Your task to perform on an android device: Open calendar and show me the third week of next month Image 0: 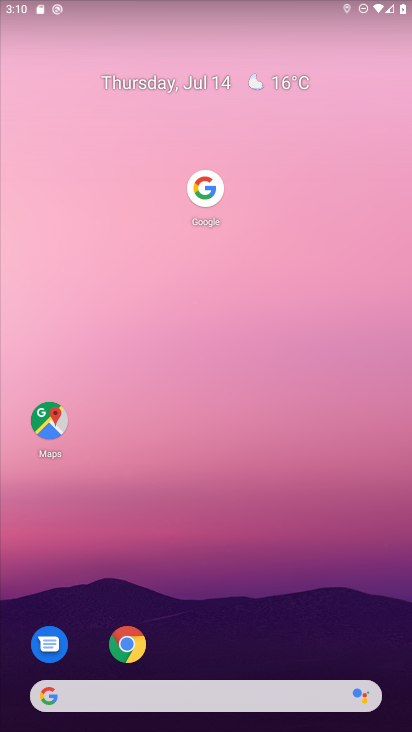
Step 0: drag from (239, 612) to (229, 191)
Your task to perform on an android device: Open calendar and show me the third week of next month Image 1: 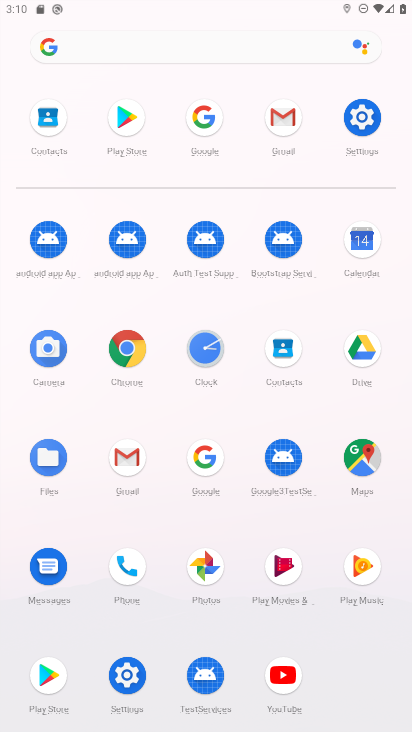
Step 1: click (374, 233)
Your task to perform on an android device: Open calendar and show me the third week of next month Image 2: 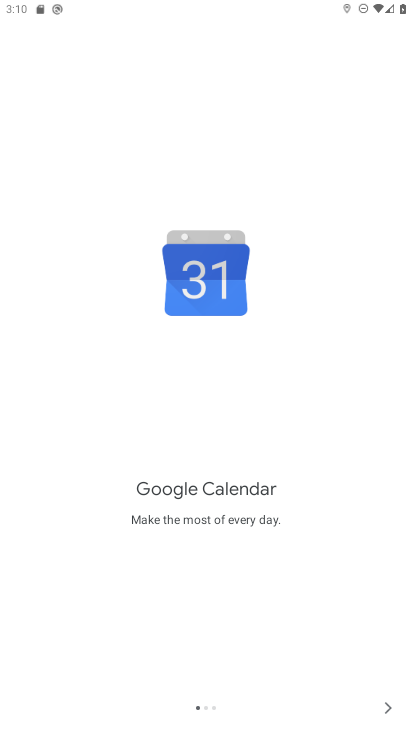
Step 2: click (385, 706)
Your task to perform on an android device: Open calendar and show me the third week of next month Image 3: 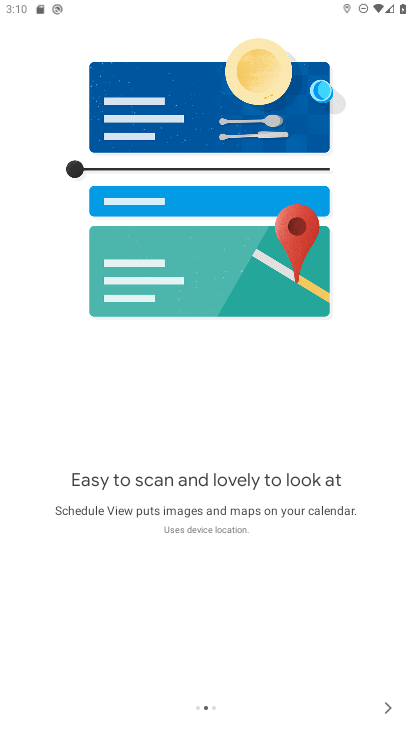
Step 3: click (385, 706)
Your task to perform on an android device: Open calendar and show me the third week of next month Image 4: 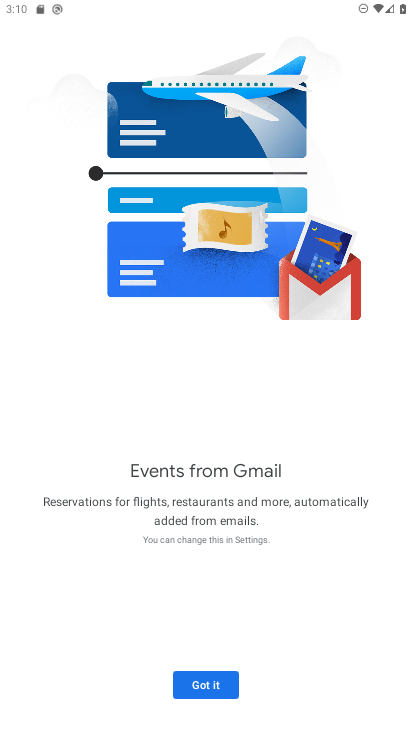
Step 4: click (221, 685)
Your task to perform on an android device: Open calendar and show me the third week of next month Image 5: 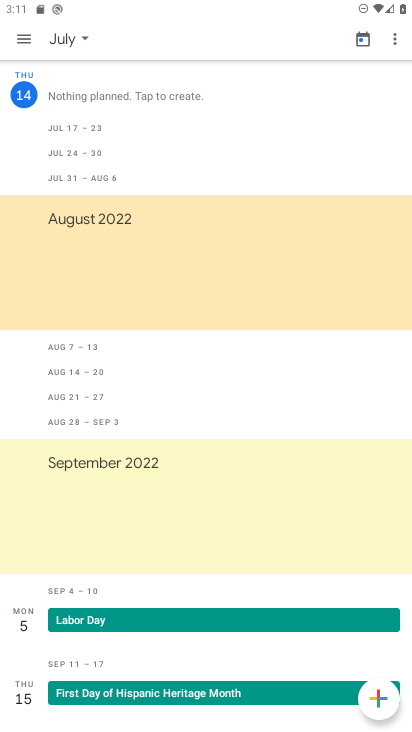
Step 5: click (76, 42)
Your task to perform on an android device: Open calendar and show me the third week of next month Image 6: 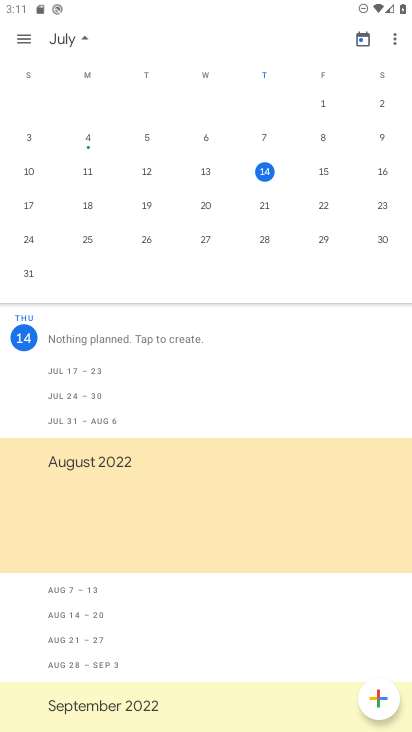
Step 6: drag from (344, 181) to (0, 186)
Your task to perform on an android device: Open calendar and show me the third week of next month Image 7: 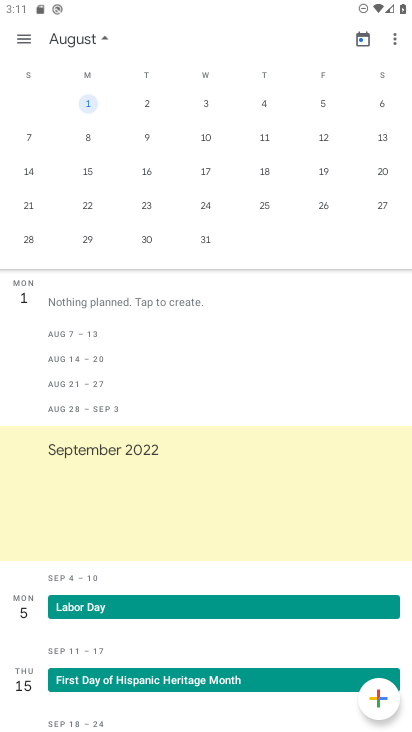
Step 7: click (25, 162)
Your task to perform on an android device: Open calendar and show me the third week of next month Image 8: 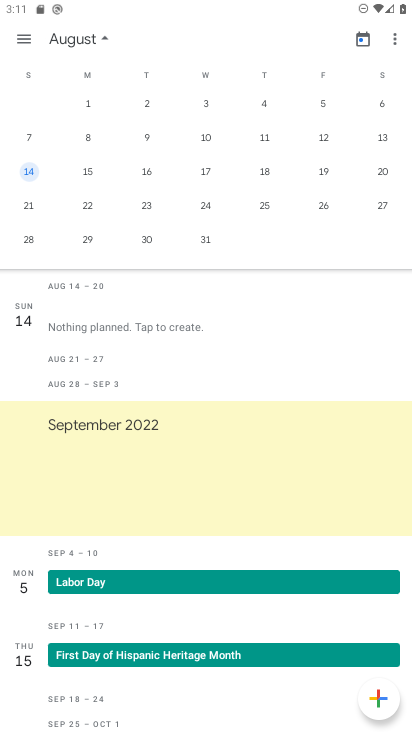
Step 8: task complete